Your task to perform on an android device: open wifi settings Image 0: 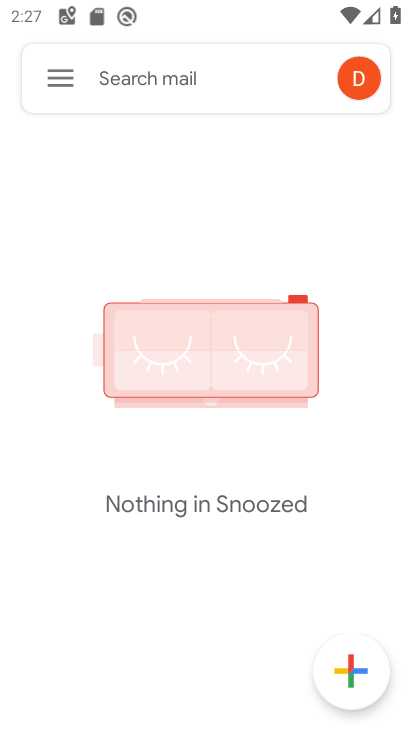
Step 0: press home button
Your task to perform on an android device: open wifi settings Image 1: 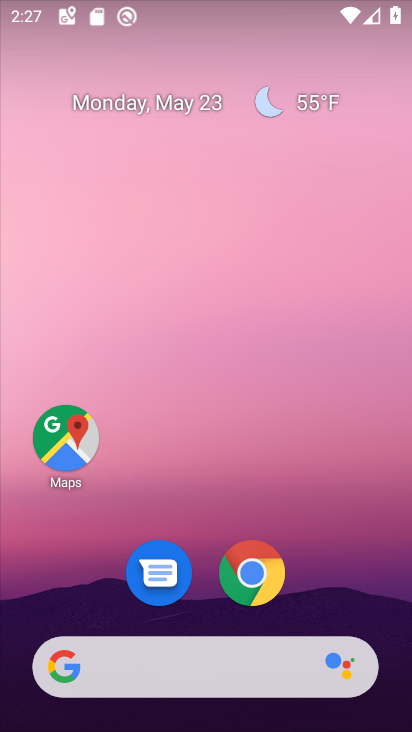
Step 1: click (250, 568)
Your task to perform on an android device: open wifi settings Image 2: 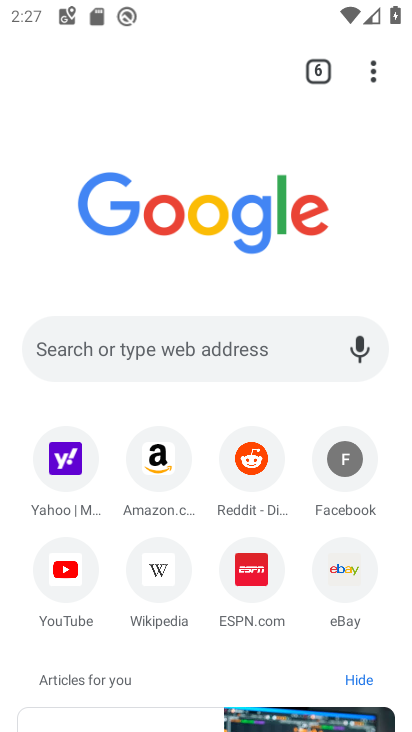
Step 2: click (319, 62)
Your task to perform on an android device: open wifi settings Image 3: 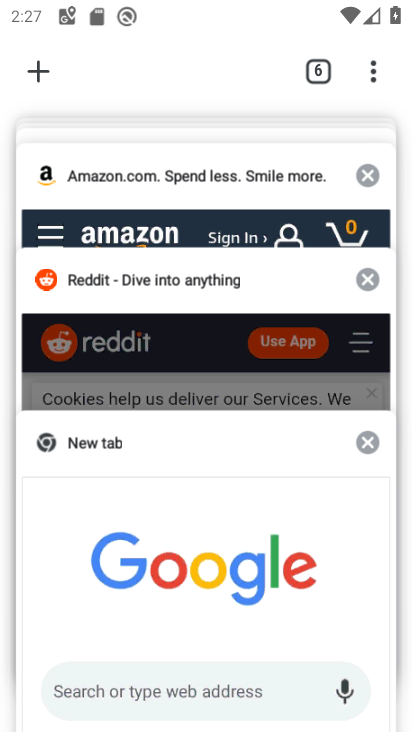
Step 3: drag from (216, 207) to (209, 554)
Your task to perform on an android device: open wifi settings Image 4: 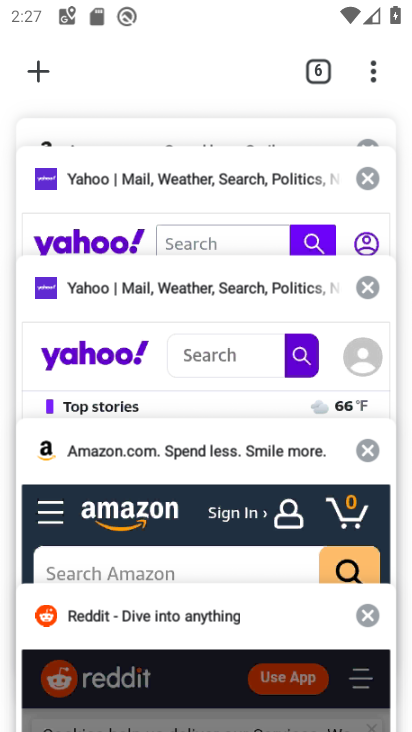
Step 4: drag from (158, 168) to (180, 513)
Your task to perform on an android device: open wifi settings Image 5: 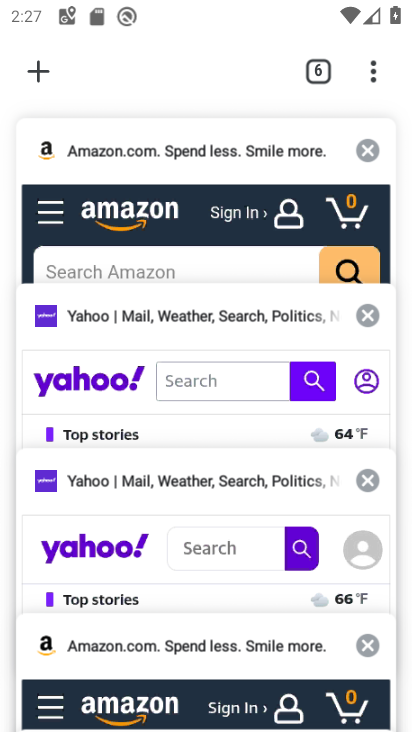
Step 5: press home button
Your task to perform on an android device: open wifi settings Image 6: 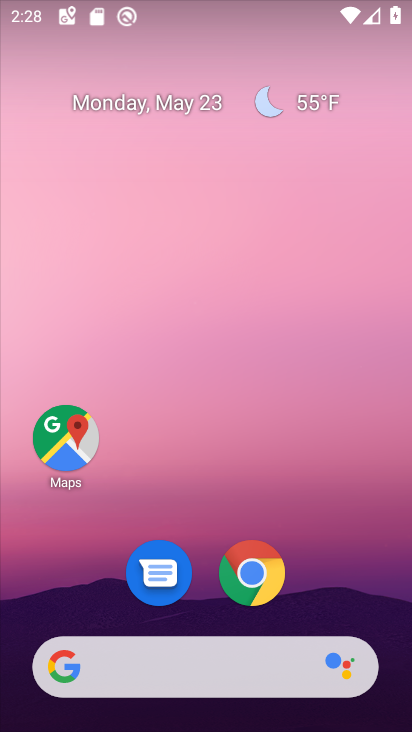
Step 6: drag from (344, 531) to (308, 57)
Your task to perform on an android device: open wifi settings Image 7: 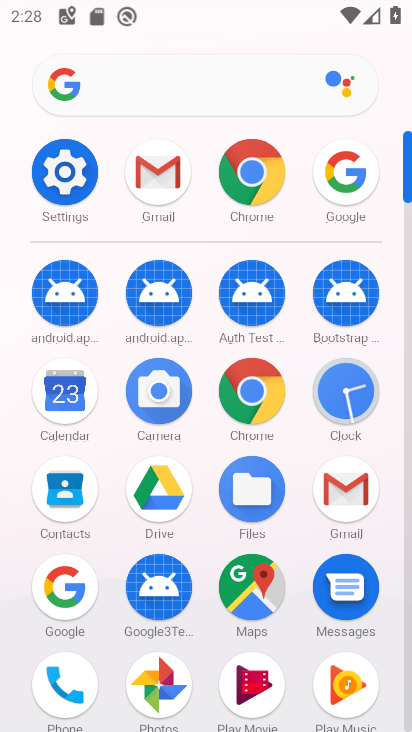
Step 7: click (59, 167)
Your task to perform on an android device: open wifi settings Image 8: 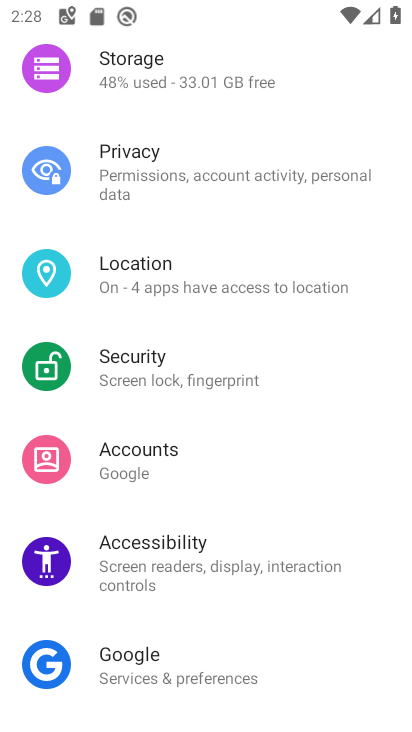
Step 8: drag from (259, 183) to (283, 547)
Your task to perform on an android device: open wifi settings Image 9: 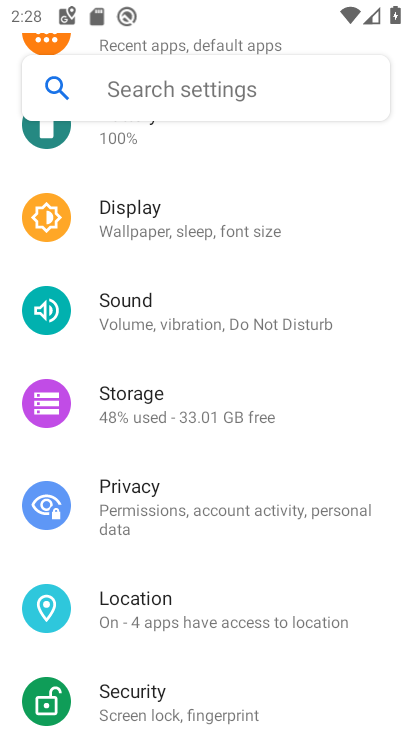
Step 9: drag from (283, 204) to (273, 548)
Your task to perform on an android device: open wifi settings Image 10: 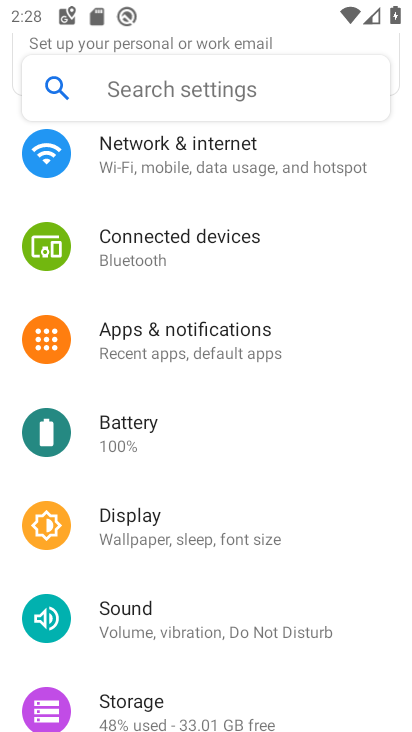
Step 10: click (245, 160)
Your task to perform on an android device: open wifi settings Image 11: 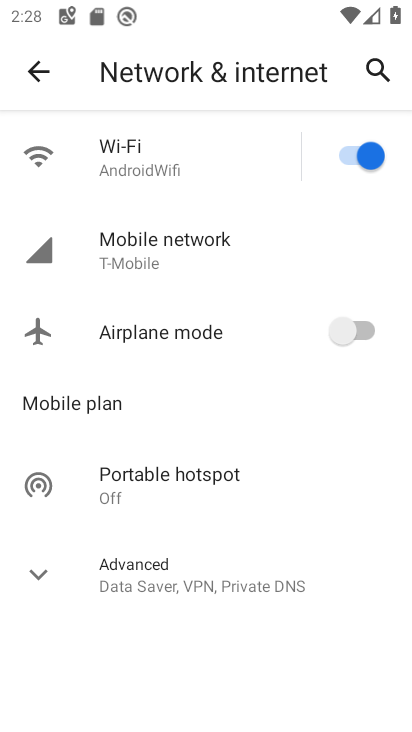
Step 11: click (153, 163)
Your task to perform on an android device: open wifi settings Image 12: 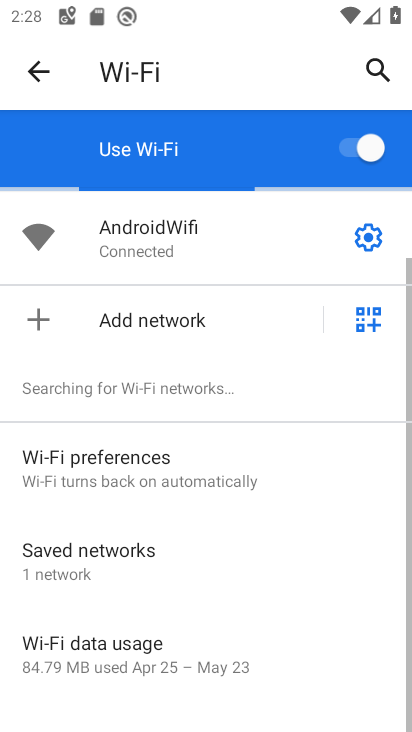
Step 12: task complete